Your task to perform on an android device: toggle data saver in the chrome app Image 0: 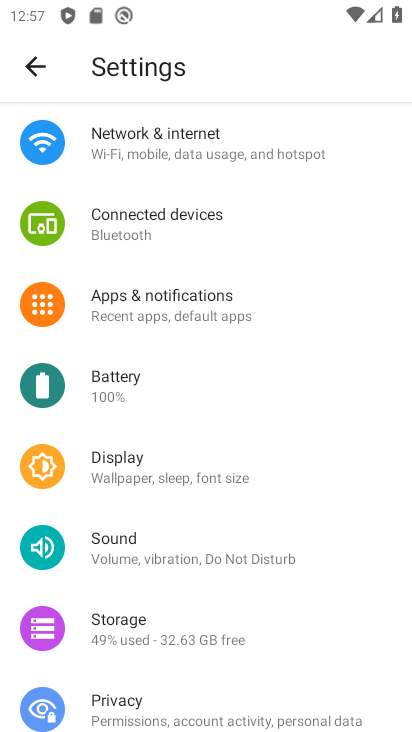
Step 0: press home button
Your task to perform on an android device: toggle data saver in the chrome app Image 1: 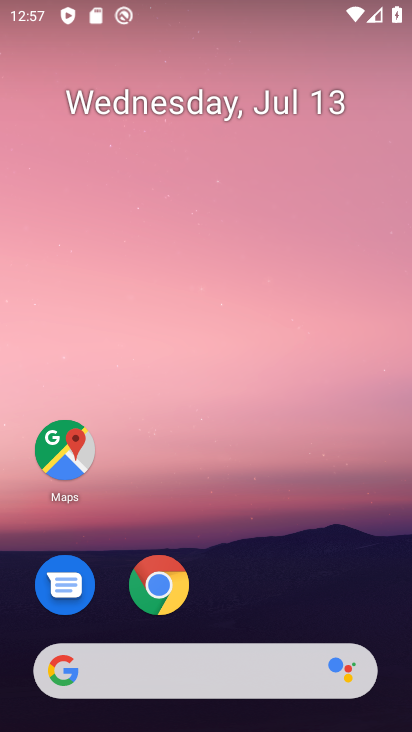
Step 1: click (157, 588)
Your task to perform on an android device: toggle data saver in the chrome app Image 2: 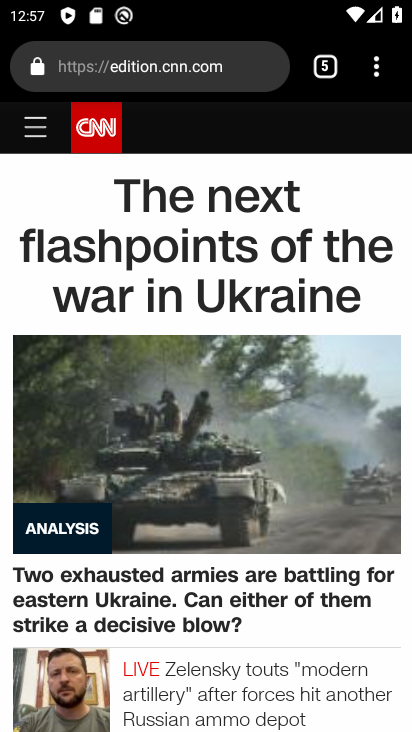
Step 2: drag from (381, 71) to (225, 602)
Your task to perform on an android device: toggle data saver in the chrome app Image 3: 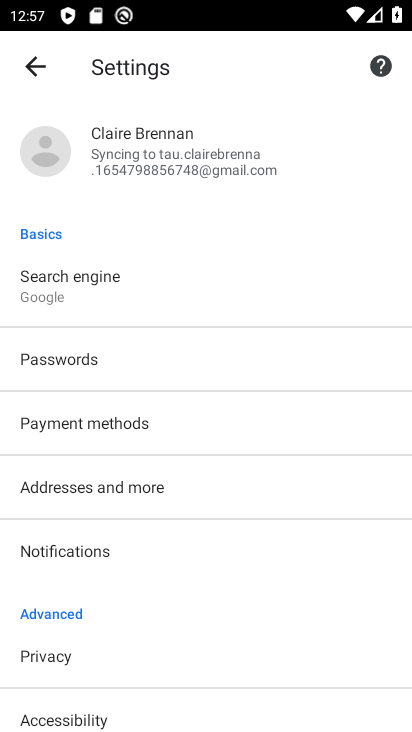
Step 3: drag from (196, 641) to (308, 130)
Your task to perform on an android device: toggle data saver in the chrome app Image 4: 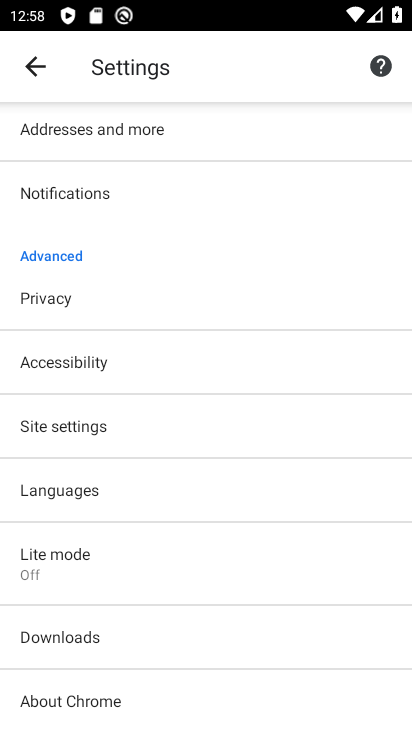
Step 4: click (92, 561)
Your task to perform on an android device: toggle data saver in the chrome app Image 5: 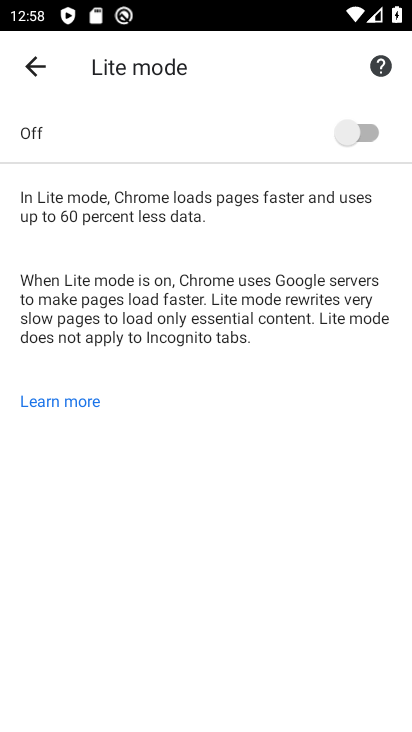
Step 5: click (366, 131)
Your task to perform on an android device: toggle data saver in the chrome app Image 6: 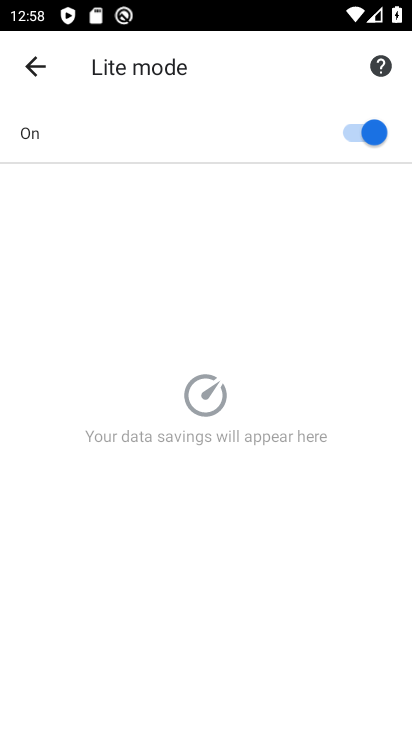
Step 6: task complete